Your task to perform on an android device: turn off smart reply in the gmail app Image 0: 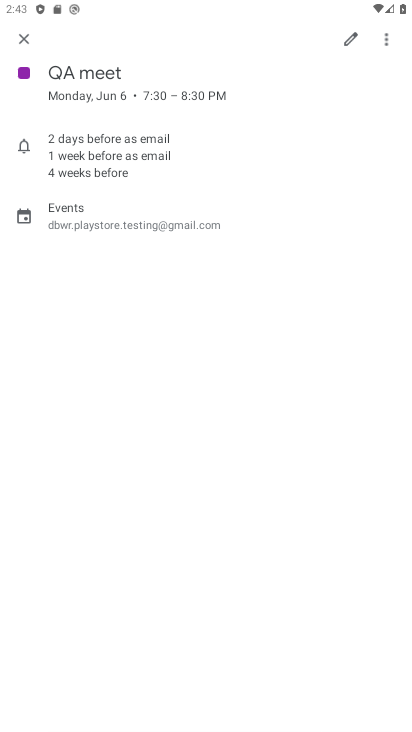
Step 0: press home button
Your task to perform on an android device: turn off smart reply in the gmail app Image 1: 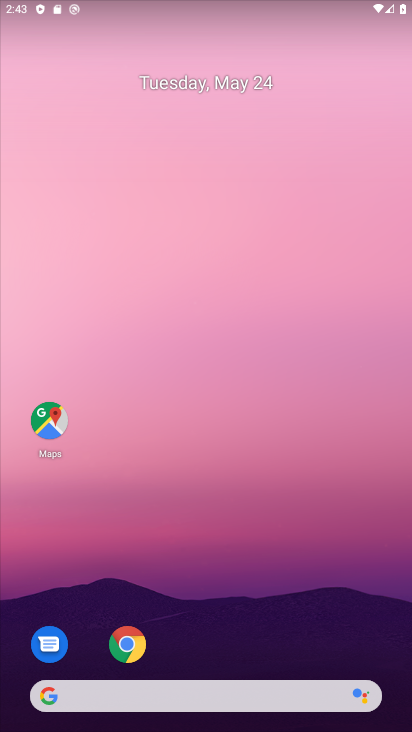
Step 1: drag from (313, 525) to (306, 290)
Your task to perform on an android device: turn off smart reply in the gmail app Image 2: 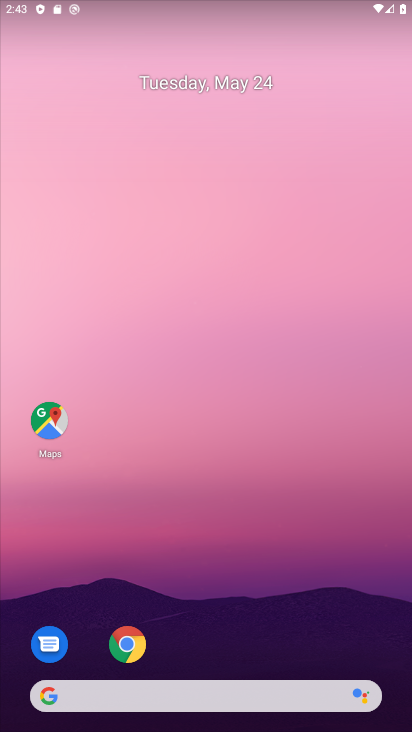
Step 2: drag from (288, 598) to (316, 207)
Your task to perform on an android device: turn off smart reply in the gmail app Image 3: 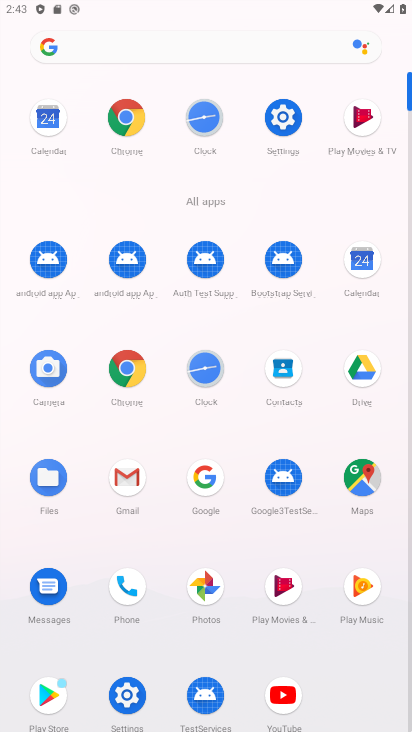
Step 3: click (130, 484)
Your task to perform on an android device: turn off smart reply in the gmail app Image 4: 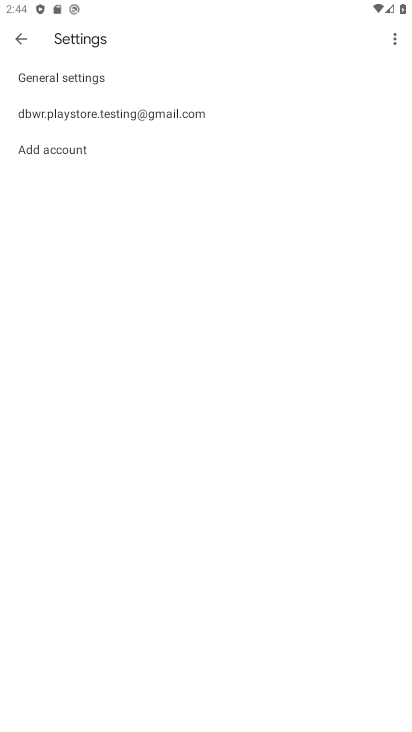
Step 4: click (72, 102)
Your task to perform on an android device: turn off smart reply in the gmail app Image 5: 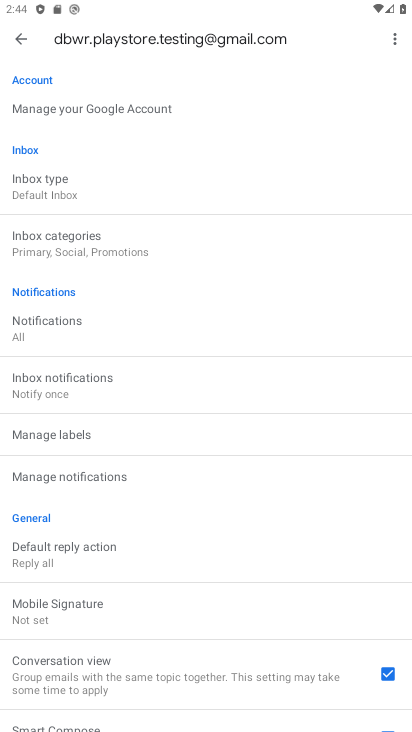
Step 5: drag from (100, 631) to (141, 365)
Your task to perform on an android device: turn off smart reply in the gmail app Image 6: 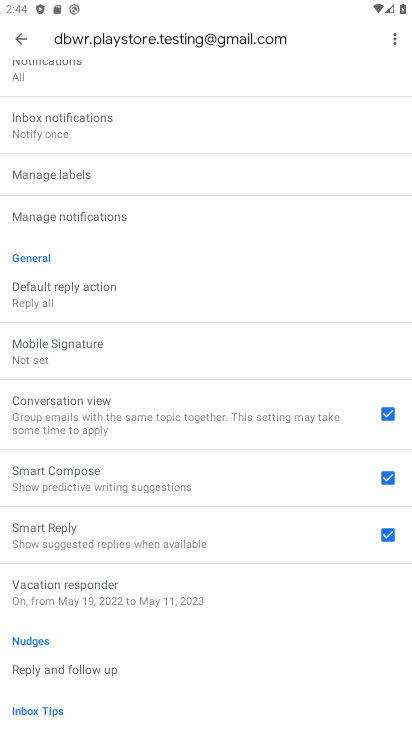
Step 6: click (94, 526)
Your task to perform on an android device: turn off smart reply in the gmail app Image 7: 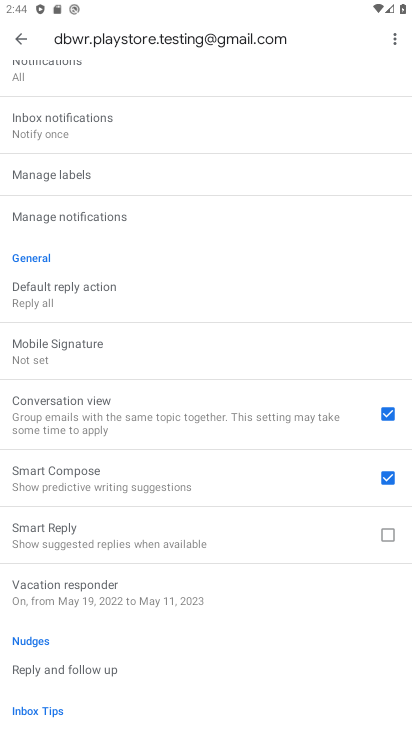
Step 7: task complete